Your task to perform on an android device: Open the web browser Image 0: 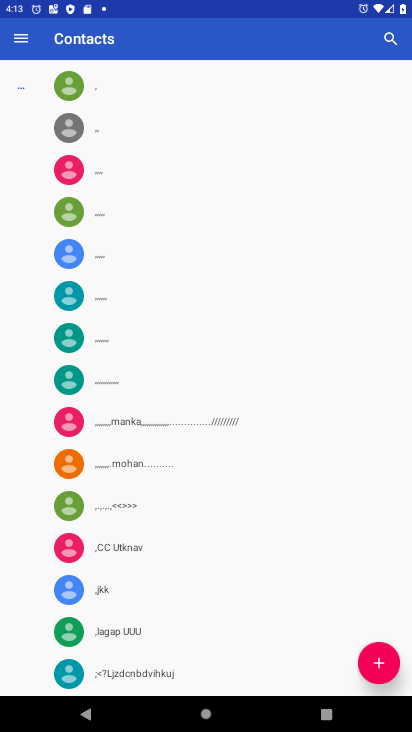
Step 0: press home button
Your task to perform on an android device: Open the web browser Image 1: 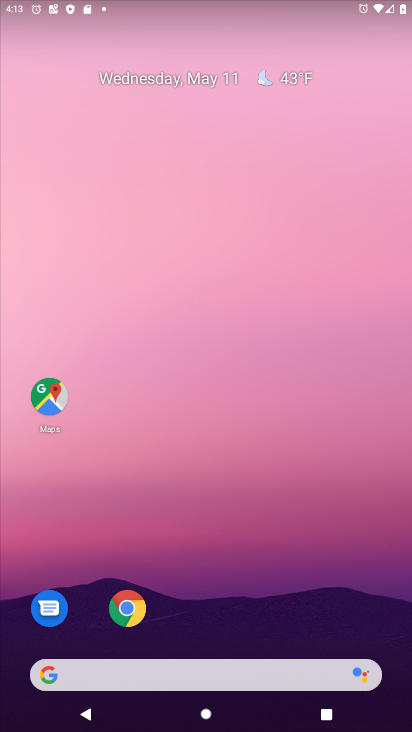
Step 1: click (129, 611)
Your task to perform on an android device: Open the web browser Image 2: 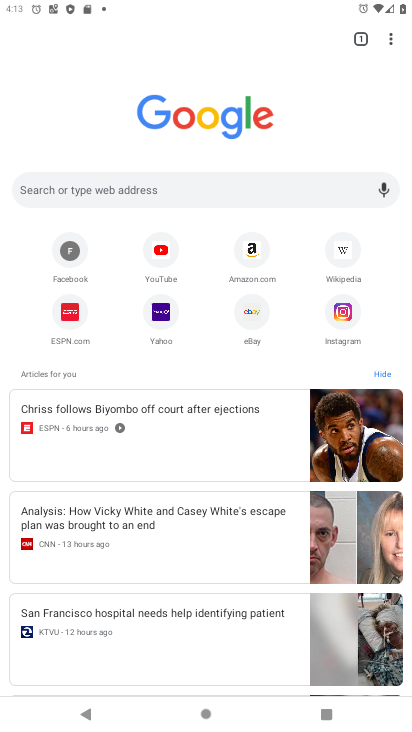
Step 2: task complete